Your task to perform on an android device: add a contact Image 0: 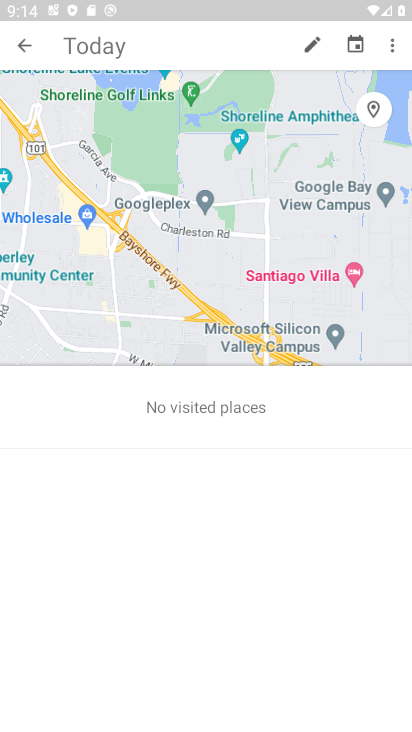
Step 0: press home button
Your task to perform on an android device: add a contact Image 1: 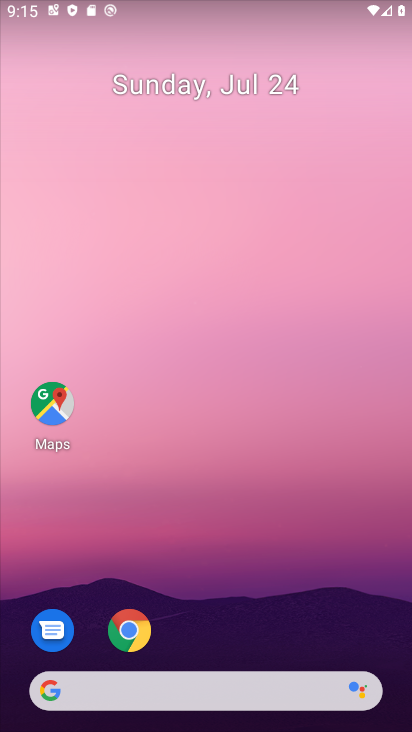
Step 1: drag from (227, 623) to (226, 19)
Your task to perform on an android device: add a contact Image 2: 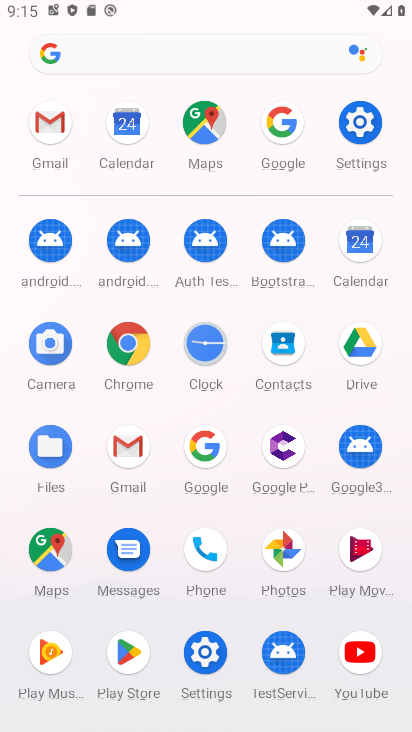
Step 2: click (278, 349)
Your task to perform on an android device: add a contact Image 3: 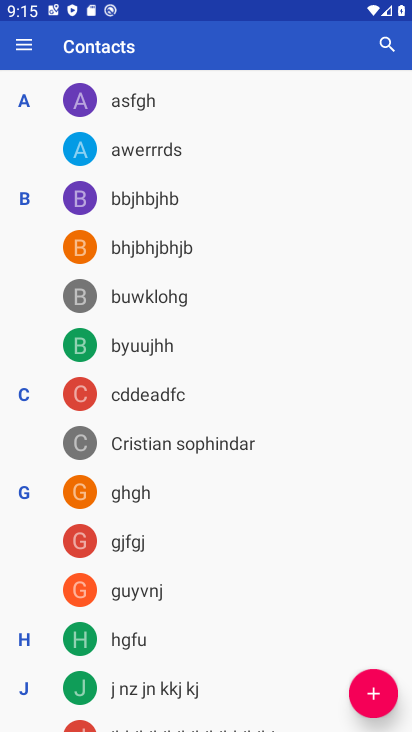
Step 3: click (379, 683)
Your task to perform on an android device: add a contact Image 4: 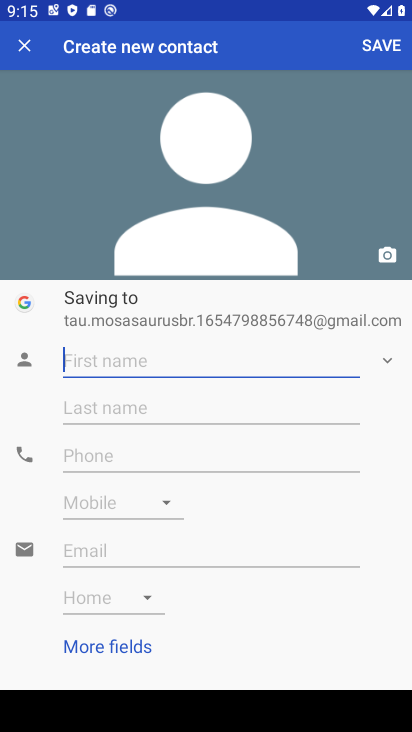
Step 4: click (188, 359)
Your task to perform on an android device: add a contact Image 5: 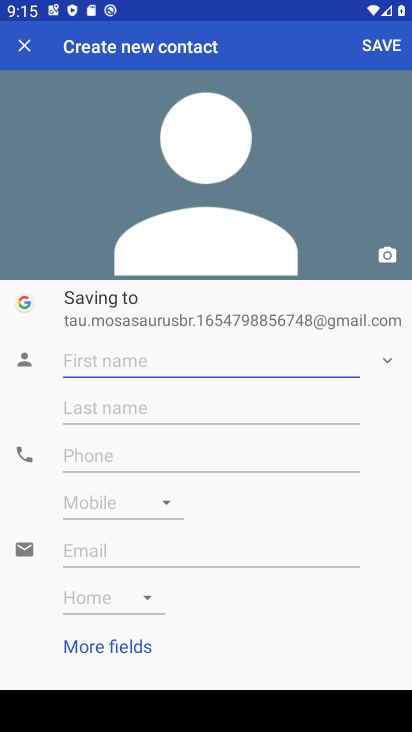
Step 5: type "dfbdfg"
Your task to perform on an android device: add a contact Image 6: 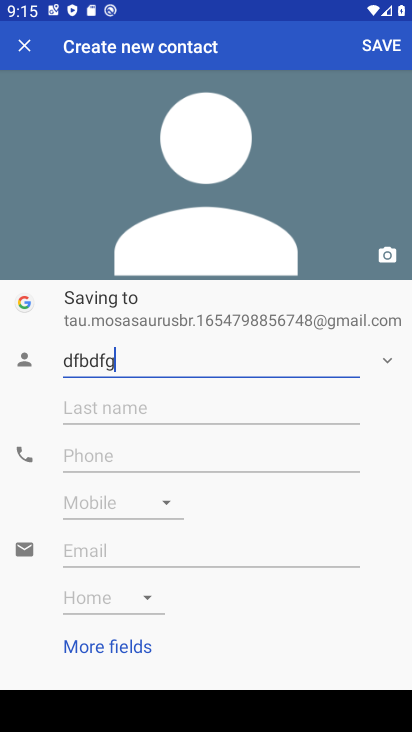
Step 6: click (131, 465)
Your task to perform on an android device: add a contact Image 7: 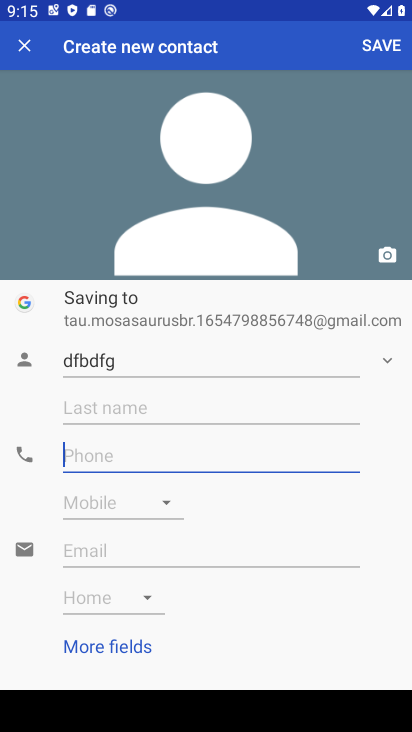
Step 7: type "868575474365"
Your task to perform on an android device: add a contact Image 8: 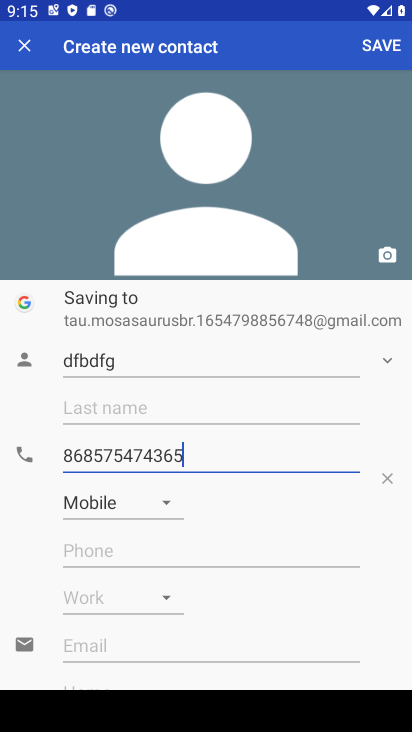
Step 8: click (384, 48)
Your task to perform on an android device: add a contact Image 9: 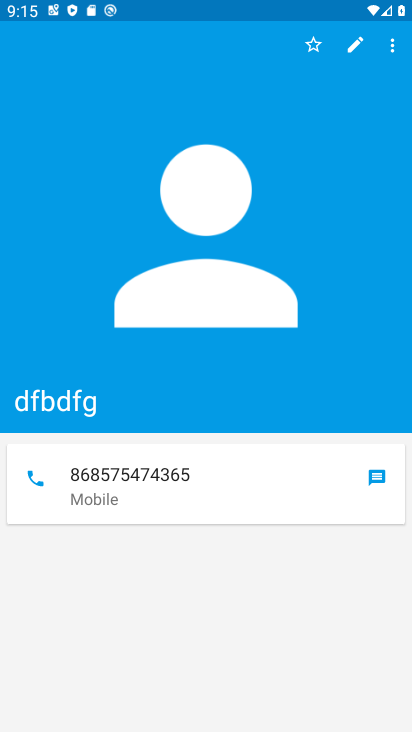
Step 9: task complete